Your task to perform on an android device: Turn off the flashlight Image 0: 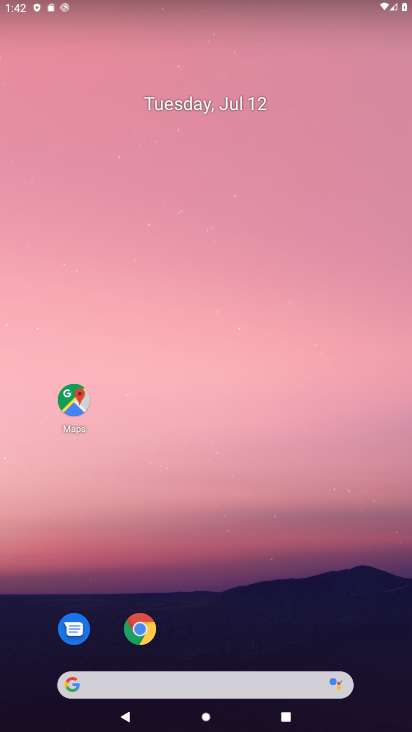
Step 0: drag from (361, 10) to (307, 386)
Your task to perform on an android device: Turn off the flashlight Image 1: 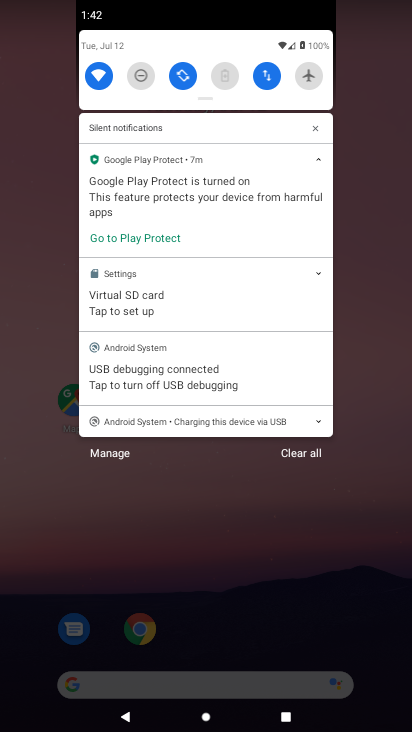
Step 1: drag from (196, 82) to (150, 452)
Your task to perform on an android device: Turn off the flashlight Image 2: 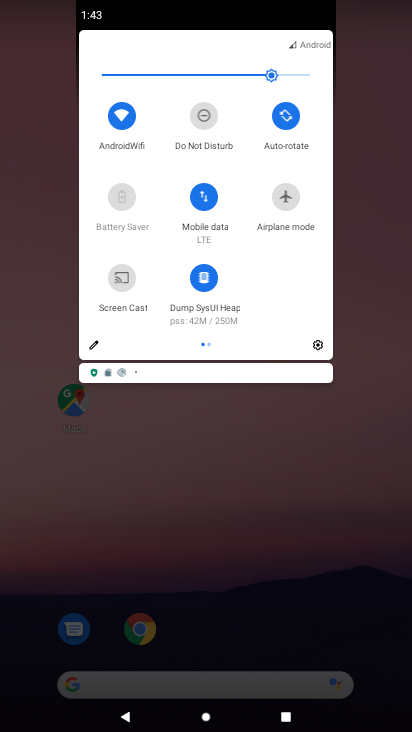
Step 2: click (89, 343)
Your task to perform on an android device: Turn off the flashlight Image 3: 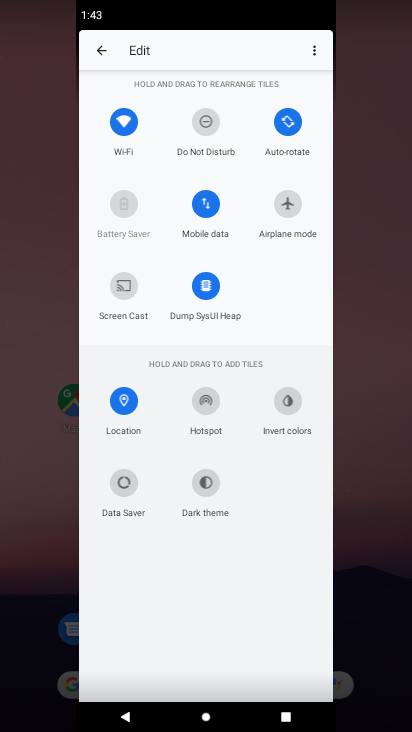
Step 3: task complete